Your task to perform on an android device: What's the weather going to be this weekend? Image 0: 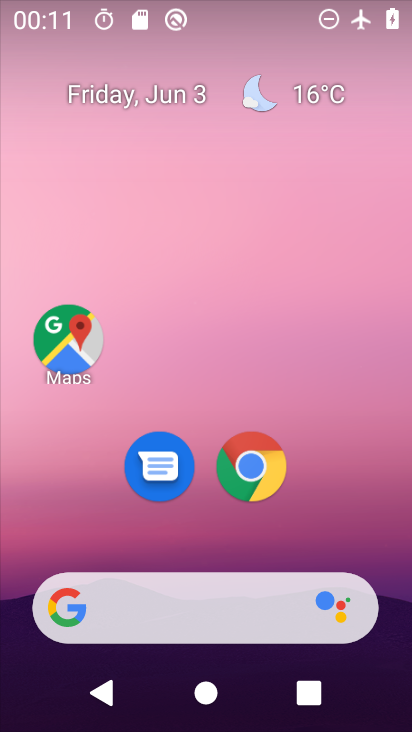
Step 0: drag from (213, 539) to (234, 222)
Your task to perform on an android device: What's the weather going to be this weekend? Image 1: 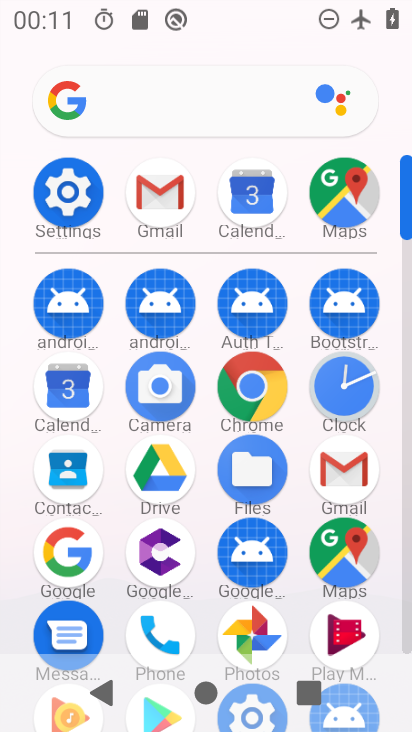
Step 1: click (62, 568)
Your task to perform on an android device: What's the weather going to be this weekend? Image 2: 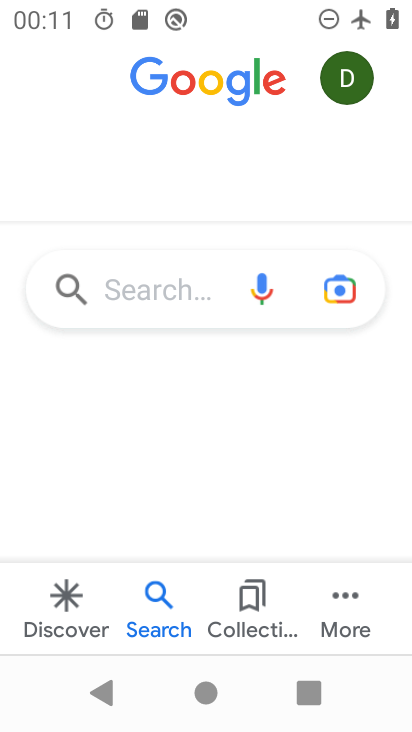
Step 2: click (189, 270)
Your task to perform on an android device: What's the weather going to be this weekend? Image 3: 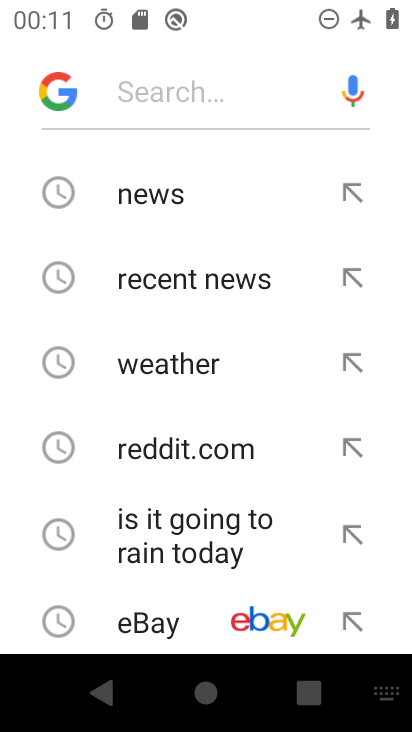
Step 3: click (183, 352)
Your task to perform on an android device: What's the weather going to be this weekend? Image 4: 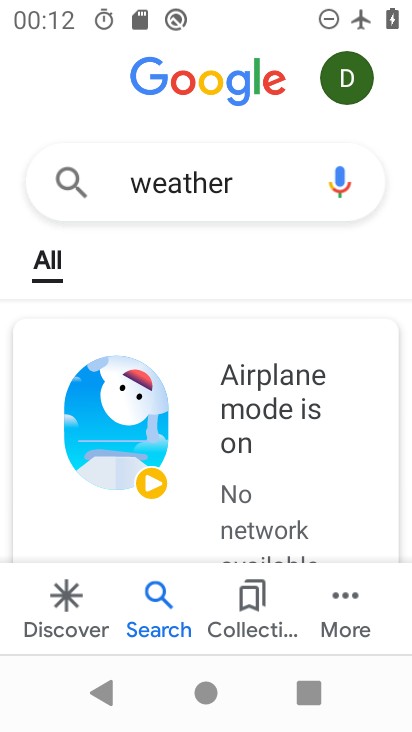
Step 4: task complete